Your task to perform on an android device: Open sound settings Image 0: 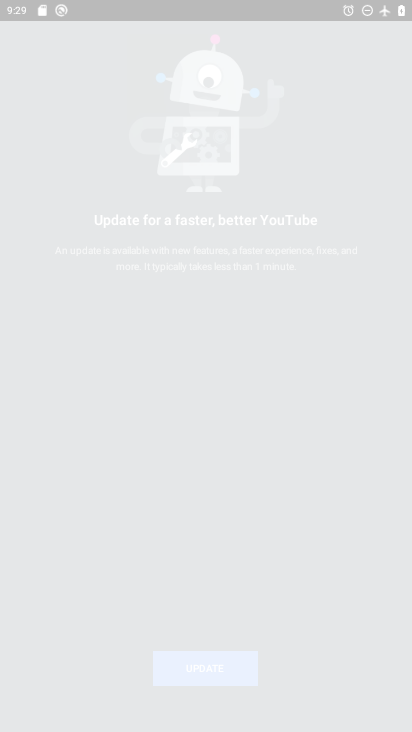
Step 0: drag from (195, 663) to (148, 13)
Your task to perform on an android device: Open sound settings Image 1: 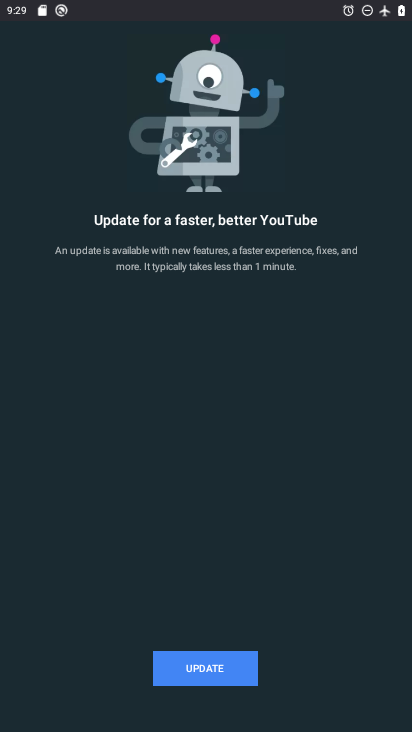
Step 1: press home button
Your task to perform on an android device: Open sound settings Image 2: 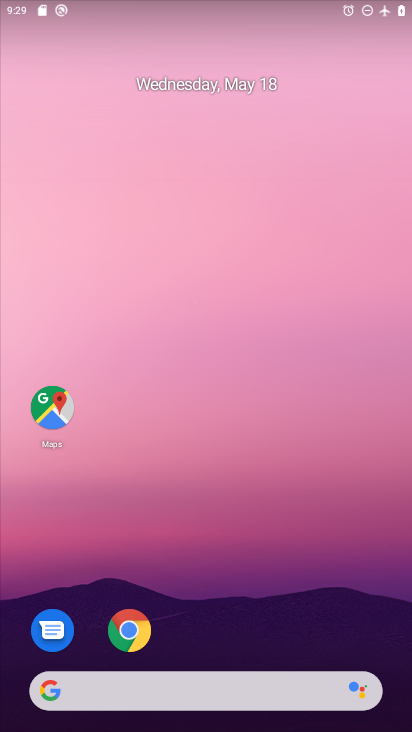
Step 2: drag from (273, 653) to (241, 34)
Your task to perform on an android device: Open sound settings Image 3: 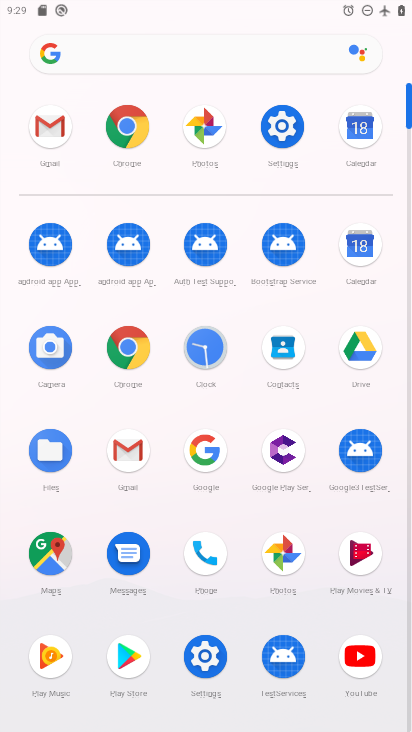
Step 3: click (285, 145)
Your task to perform on an android device: Open sound settings Image 4: 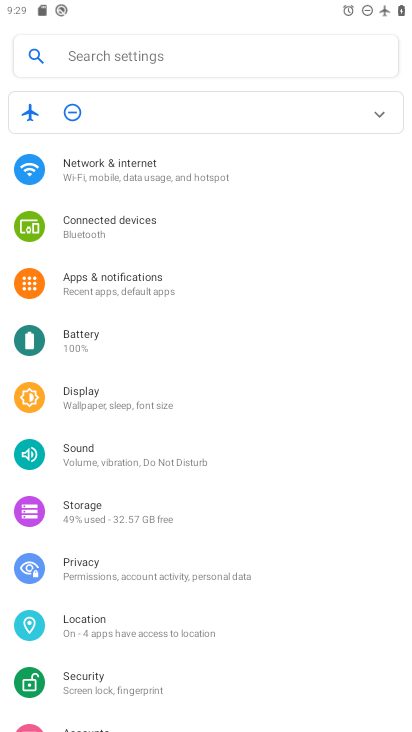
Step 4: click (47, 448)
Your task to perform on an android device: Open sound settings Image 5: 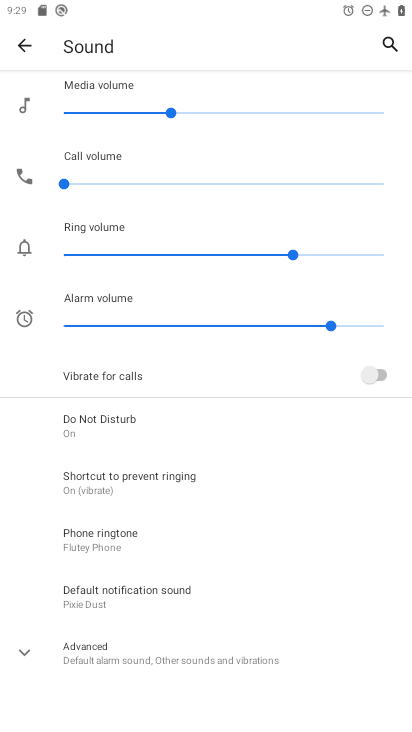
Step 5: drag from (305, 614) to (301, 266)
Your task to perform on an android device: Open sound settings Image 6: 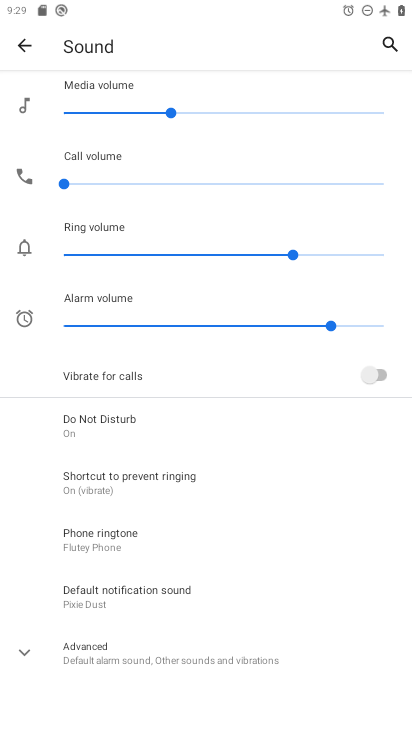
Step 6: click (92, 660)
Your task to perform on an android device: Open sound settings Image 7: 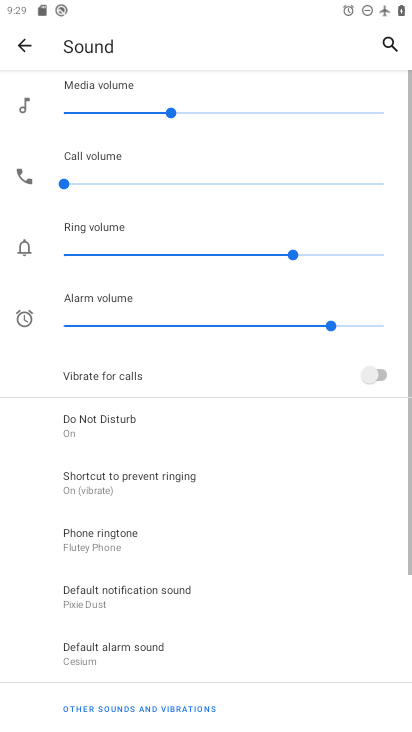
Step 7: task complete